Your task to perform on an android device: Open notification settings Image 0: 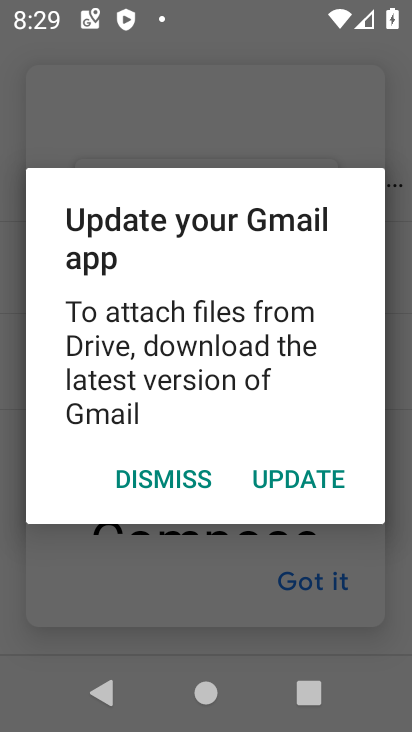
Step 0: press home button
Your task to perform on an android device: Open notification settings Image 1: 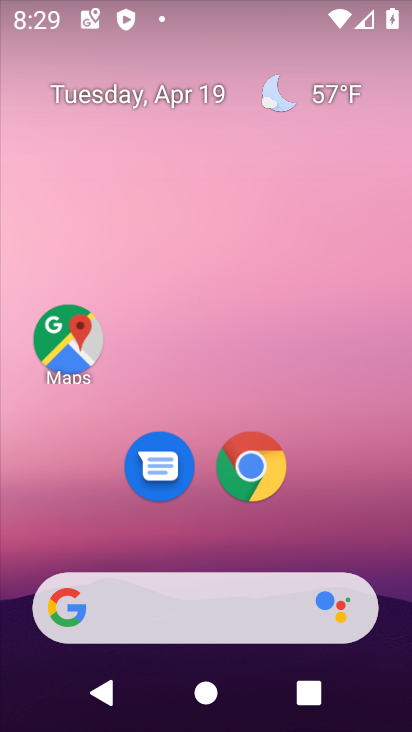
Step 1: drag from (205, 726) to (190, 69)
Your task to perform on an android device: Open notification settings Image 2: 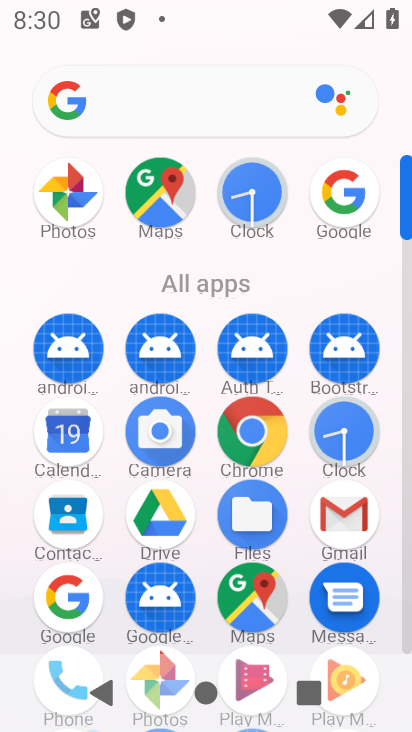
Step 2: drag from (207, 632) to (194, 238)
Your task to perform on an android device: Open notification settings Image 3: 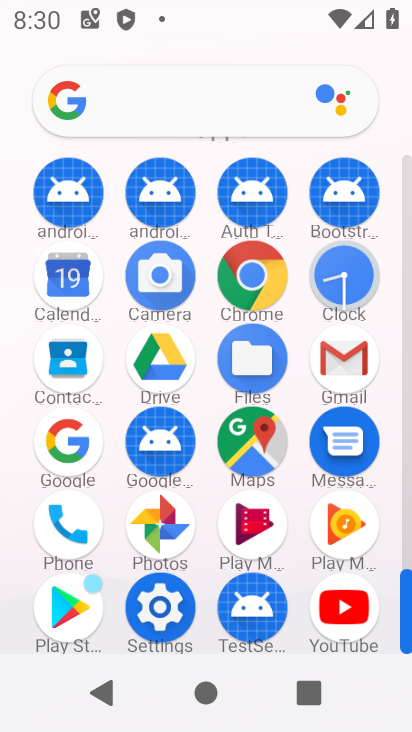
Step 3: click (147, 611)
Your task to perform on an android device: Open notification settings Image 4: 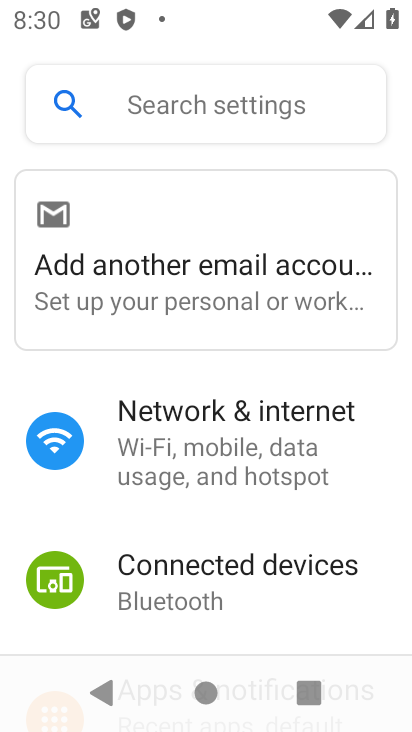
Step 4: drag from (200, 631) to (215, 279)
Your task to perform on an android device: Open notification settings Image 5: 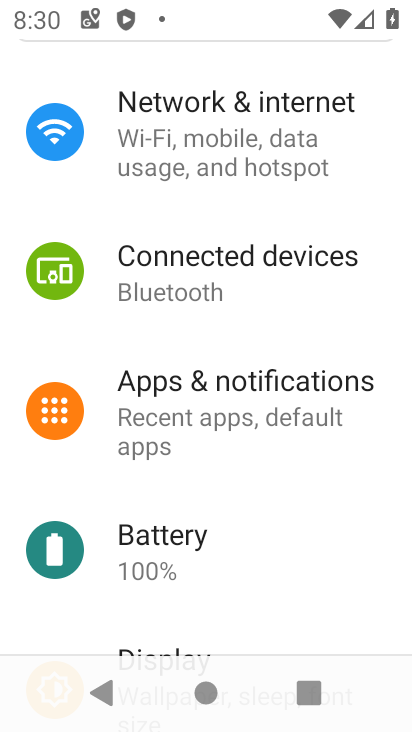
Step 5: click (221, 391)
Your task to perform on an android device: Open notification settings Image 6: 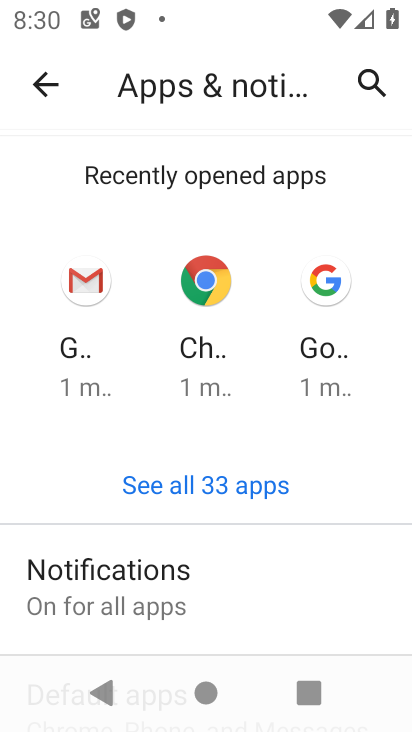
Step 6: drag from (215, 611) to (219, 401)
Your task to perform on an android device: Open notification settings Image 7: 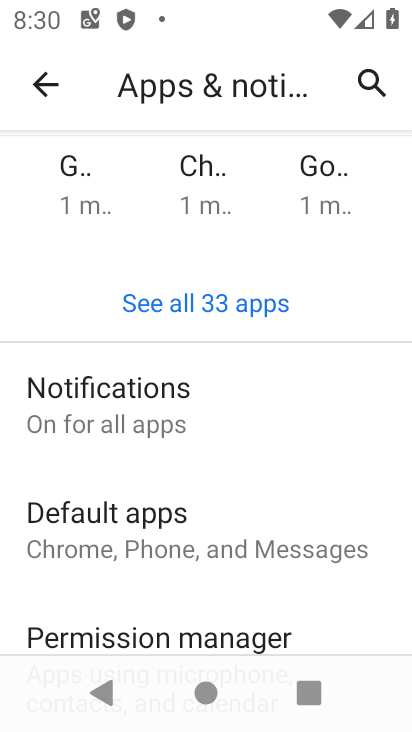
Step 7: click (95, 403)
Your task to perform on an android device: Open notification settings Image 8: 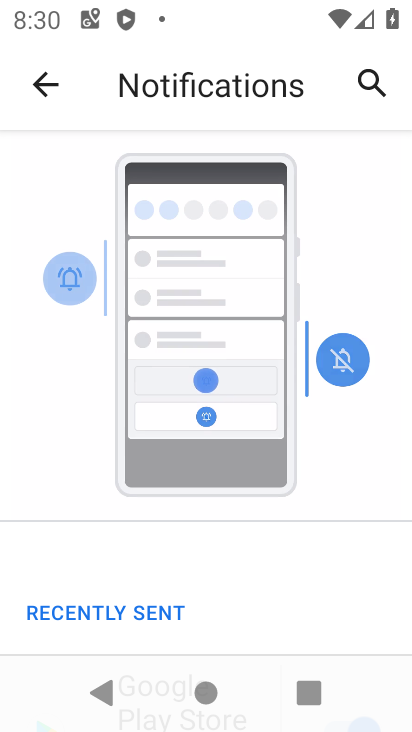
Step 8: task complete